Your task to perform on an android device: Open Google Chrome and click the shortcut for Amazon.com Image 0: 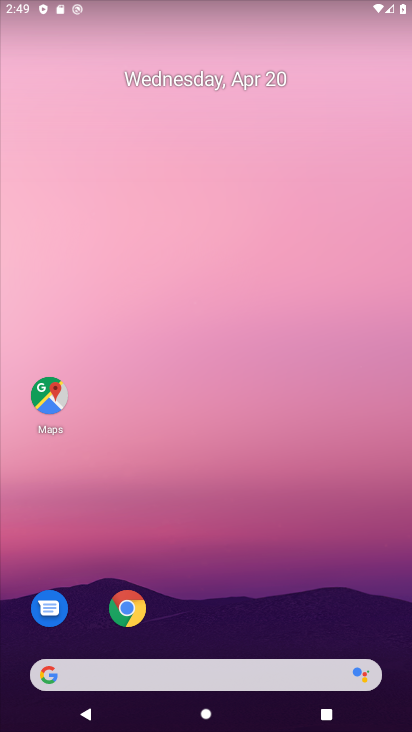
Step 0: drag from (230, 450) to (335, 35)
Your task to perform on an android device: Open Google Chrome and click the shortcut for Amazon.com Image 1: 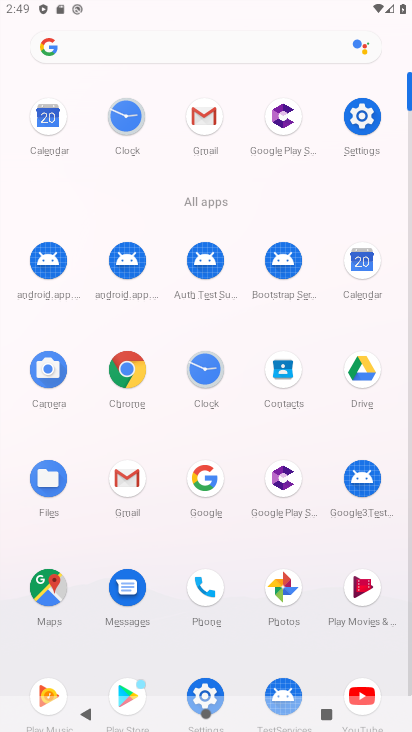
Step 1: click (132, 376)
Your task to perform on an android device: Open Google Chrome and click the shortcut for Amazon.com Image 2: 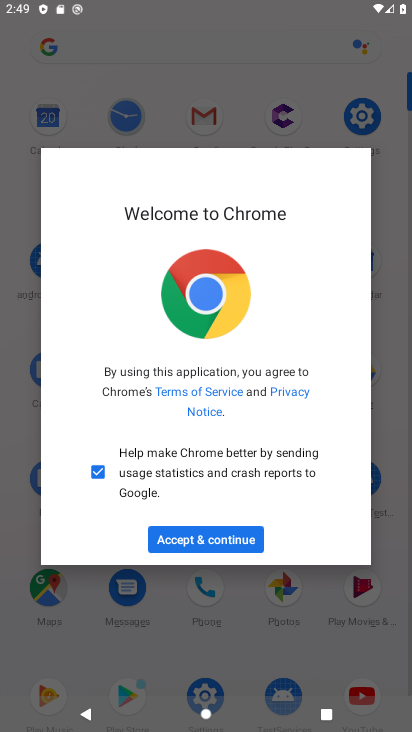
Step 2: click (163, 535)
Your task to perform on an android device: Open Google Chrome and click the shortcut for Amazon.com Image 3: 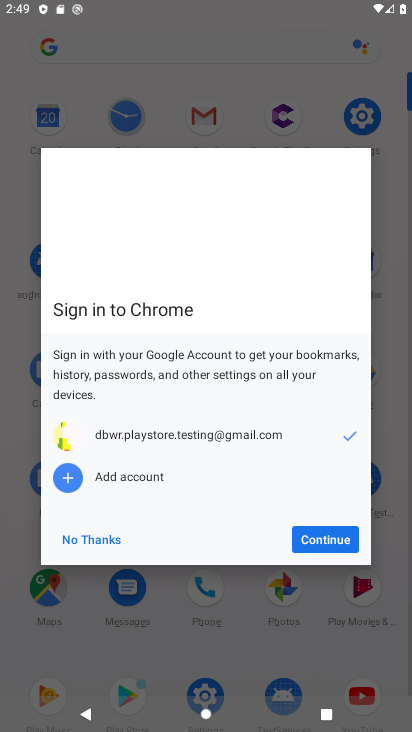
Step 3: click (334, 530)
Your task to perform on an android device: Open Google Chrome and click the shortcut for Amazon.com Image 4: 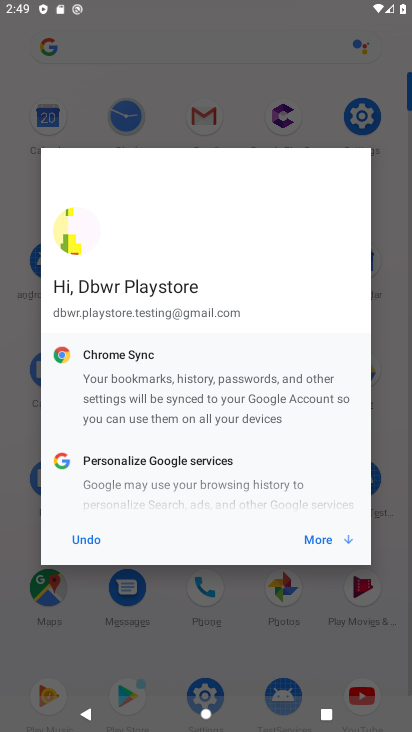
Step 4: click (334, 530)
Your task to perform on an android device: Open Google Chrome and click the shortcut for Amazon.com Image 5: 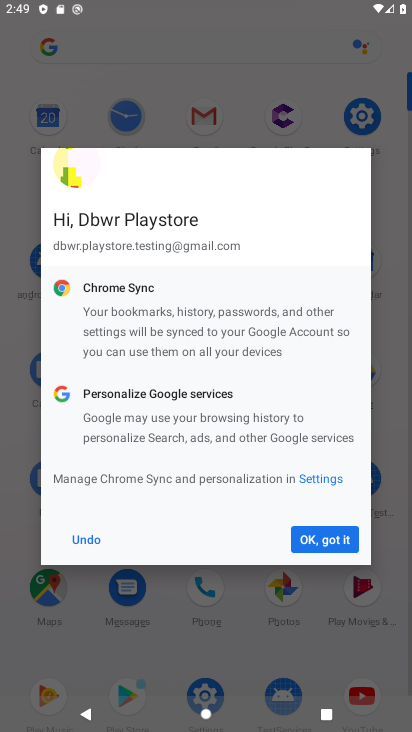
Step 5: click (333, 530)
Your task to perform on an android device: Open Google Chrome and click the shortcut for Amazon.com Image 6: 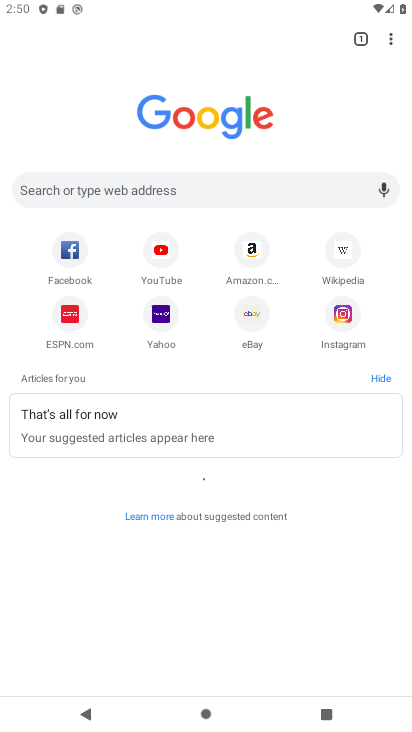
Step 6: click (249, 246)
Your task to perform on an android device: Open Google Chrome and click the shortcut for Amazon.com Image 7: 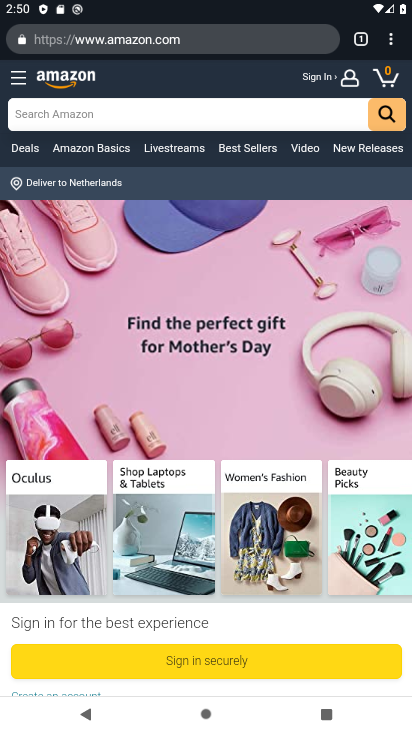
Step 7: task complete